Your task to perform on an android device: open device folders in google photos Image 0: 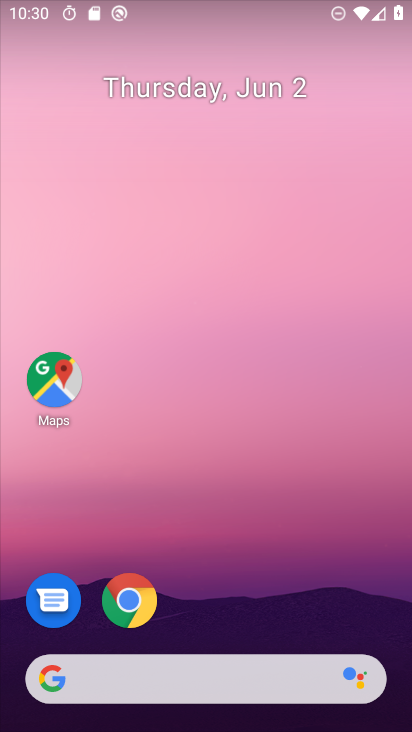
Step 0: drag from (253, 609) to (289, 50)
Your task to perform on an android device: open device folders in google photos Image 1: 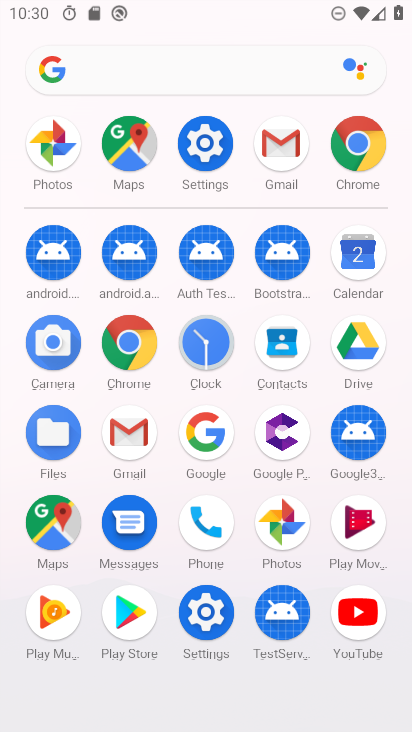
Step 1: click (282, 515)
Your task to perform on an android device: open device folders in google photos Image 2: 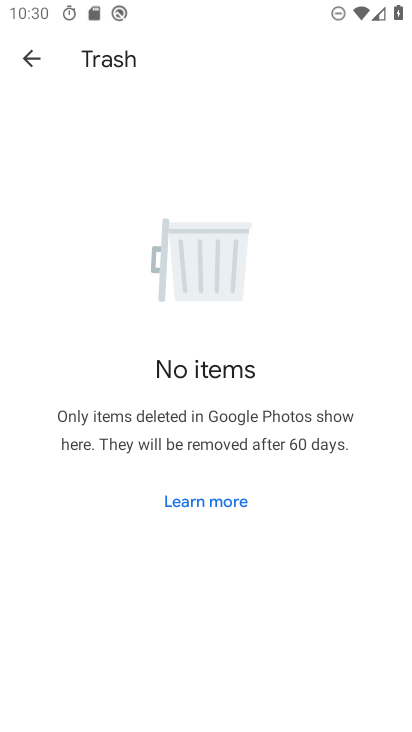
Step 2: press back button
Your task to perform on an android device: open device folders in google photos Image 3: 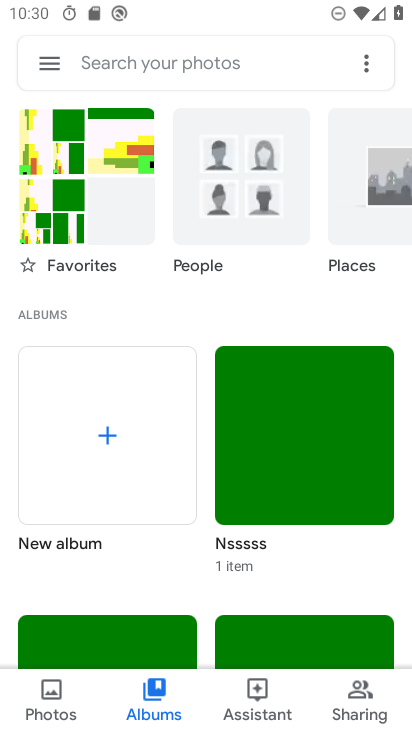
Step 3: click (60, 58)
Your task to perform on an android device: open device folders in google photos Image 4: 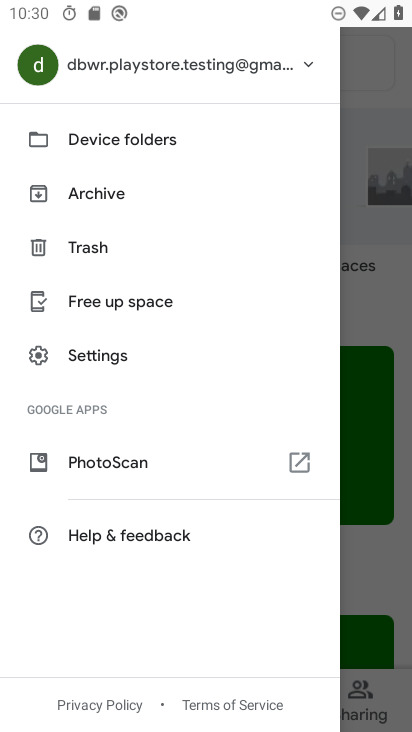
Step 4: click (104, 133)
Your task to perform on an android device: open device folders in google photos Image 5: 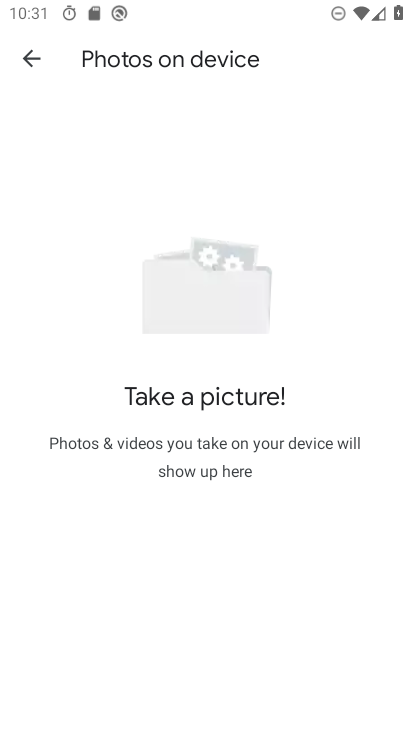
Step 5: task complete